Your task to perform on an android device: toggle data saver in the chrome app Image 0: 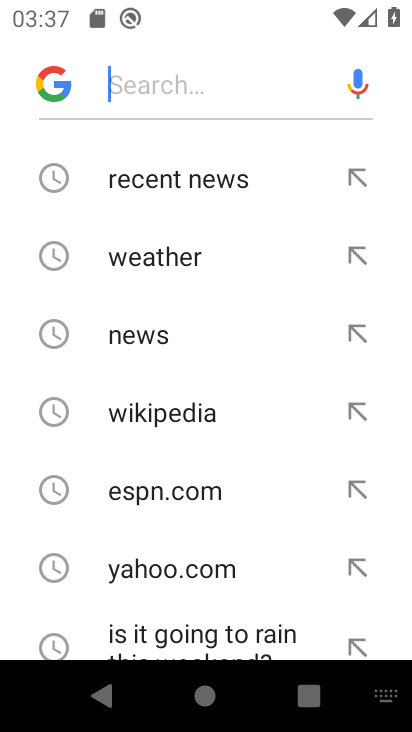
Step 0: press back button
Your task to perform on an android device: toggle data saver in the chrome app Image 1: 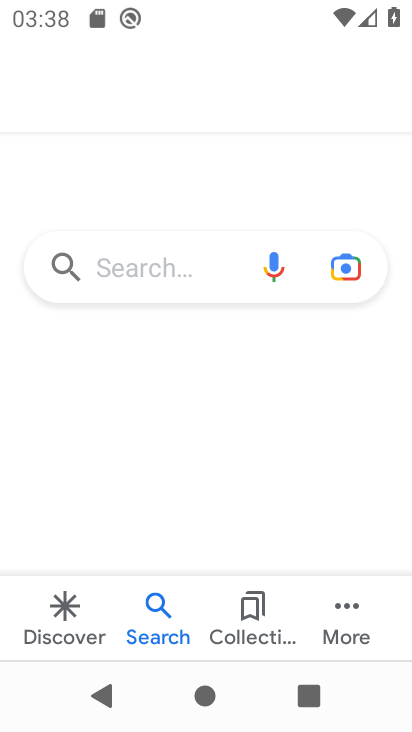
Step 1: press back button
Your task to perform on an android device: toggle data saver in the chrome app Image 2: 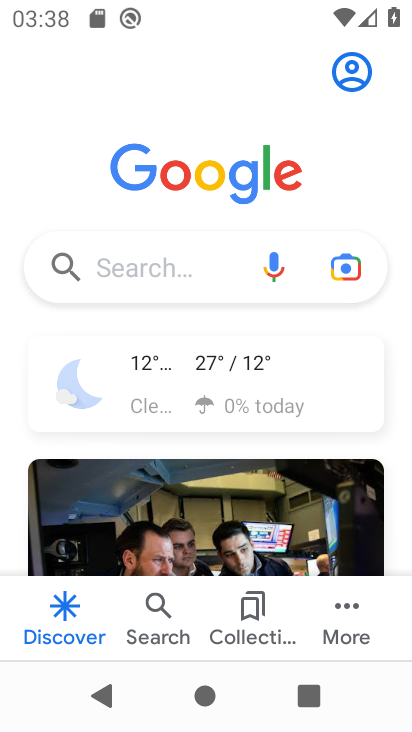
Step 2: press back button
Your task to perform on an android device: toggle data saver in the chrome app Image 3: 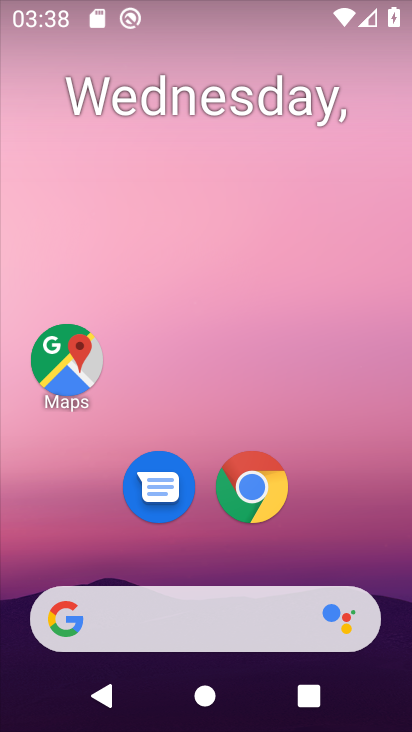
Step 3: click (251, 481)
Your task to perform on an android device: toggle data saver in the chrome app Image 4: 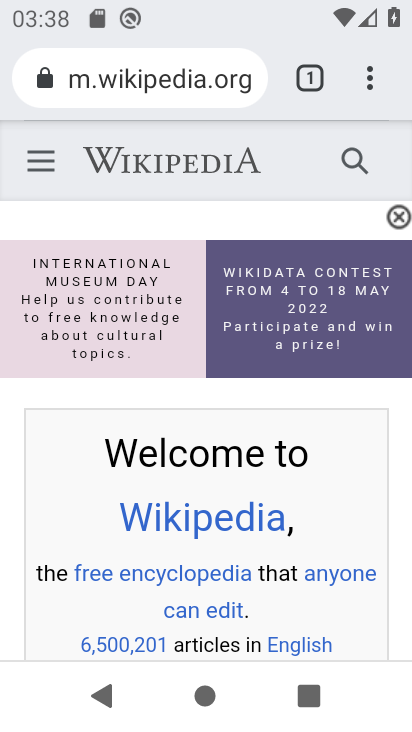
Step 4: click (369, 77)
Your task to perform on an android device: toggle data saver in the chrome app Image 5: 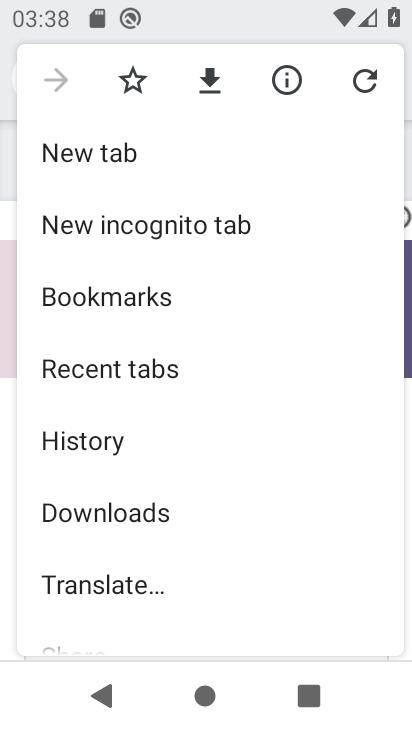
Step 5: drag from (163, 543) to (189, 418)
Your task to perform on an android device: toggle data saver in the chrome app Image 6: 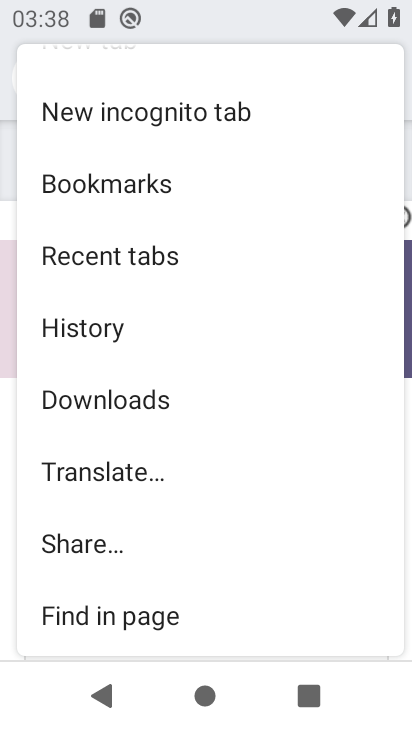
Step 6: drag from (153, 546) to (172, 416)
Your task to perform on an android device: toggle data saver in the chrome app Image 7: 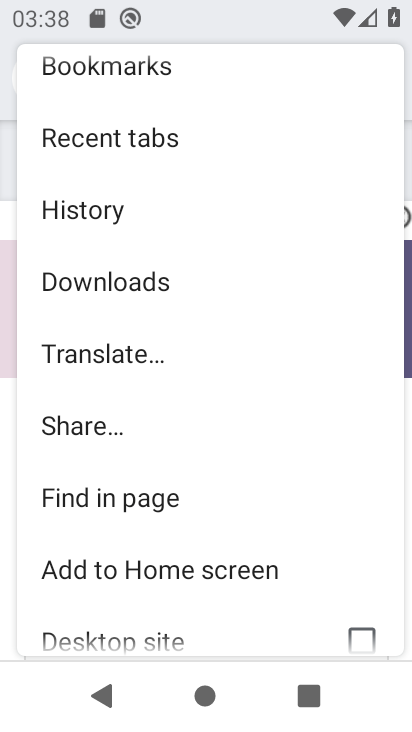
Step 7: drag from (144, 534) to (155, 421)
Your task to perform on an android device: toggle data saver in the chrome app Image 8: 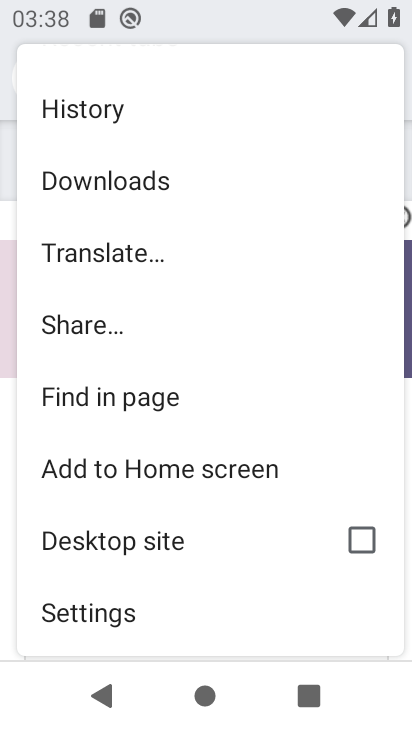
Step 8: drag from (80, 572) to (140, 421)
Your task to perform on an android device: toggle data saver in the chrome app Image 9: 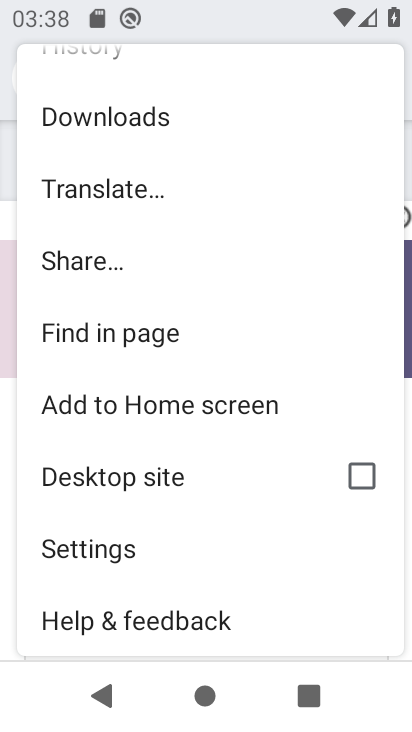
Step 9: drag from (102, 562) to (168, 446)
Your task to perform on an android device: toggle data saver in the chrome app Image 10: 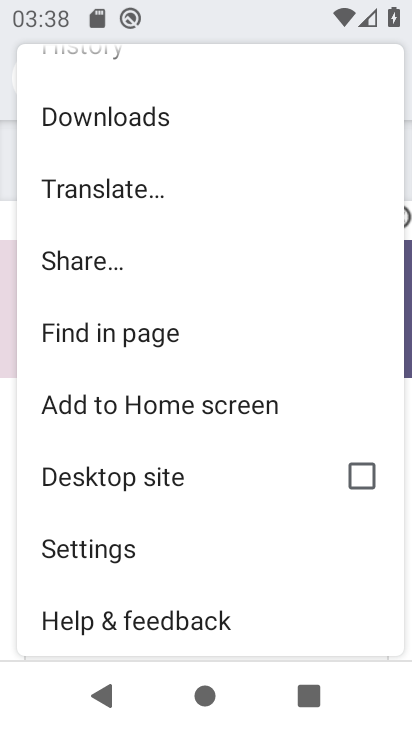
Step 10: click (100, 553)
Your task to perform on an android device: toggle data saver in the chrome app Image 11: 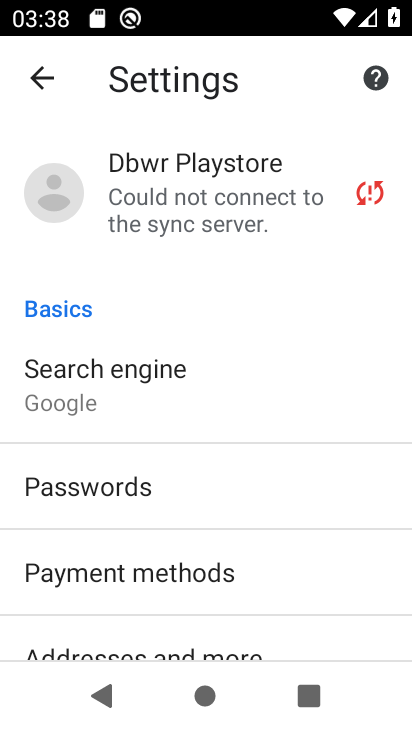
Step 11: drag from (111, 556) to (158, 457)
Your task to perform on an android device: toggle data saver in the chrome app Image 12: 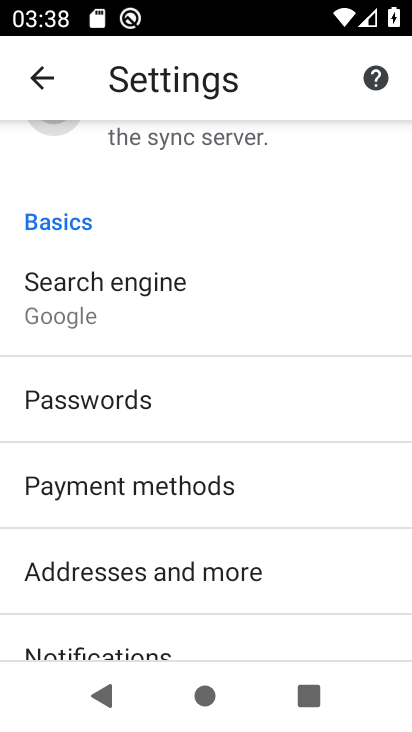
Step 12: drag from (98, 598) to (162, 463)
Your task to perform on an android device: toggle data saver in the chrome app Image 13: 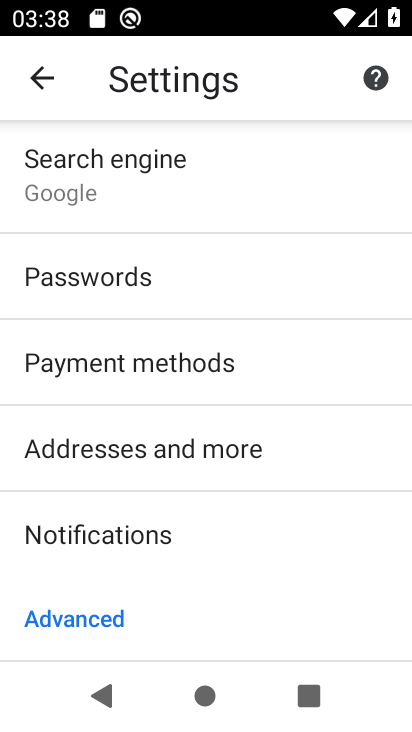
Step 13: drag from (104, 566) to (202, 446)
Your task to perform on an android device: toggle data saver in the chrome app Image 14: 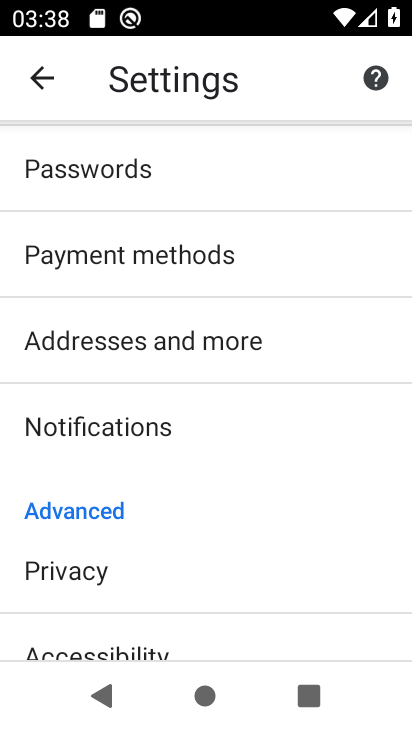
Step 14: drag from (135, 554) to (214, 450)
Your task to perform on an android device: toggle data saver in the chrome app Image 15: 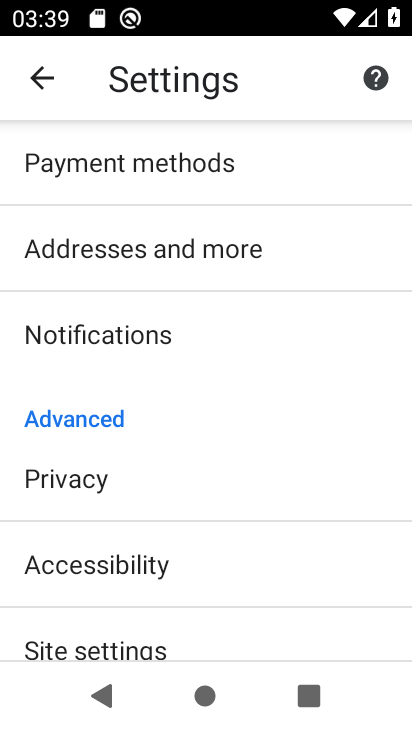
Step 15: drag from (124, 613) to (212, 468)
Your task to perform on an android device: toggle data saver in the chrome app Image 16: 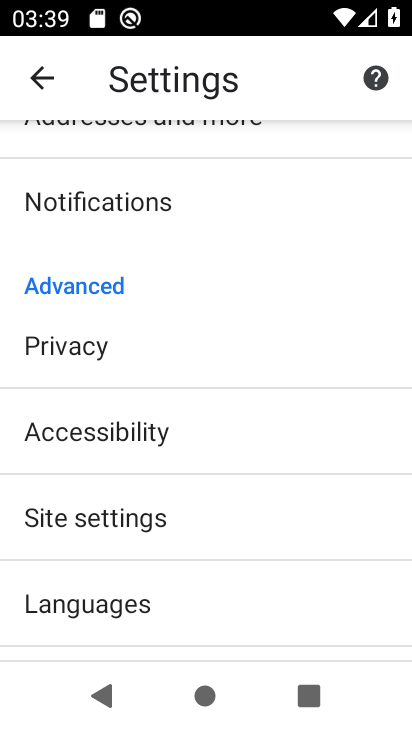
Step 16: drag from (82, 568) to (161, 458)
Your task to perform on an android device: toggle data saver in the chrome app Image 17: 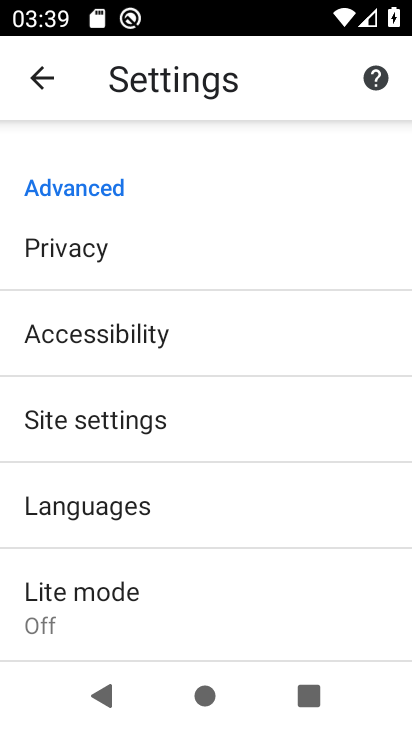
Step 17: click (71, 600)
Your task to perform on an android device: toggle data saver in the chrome app Image 18: 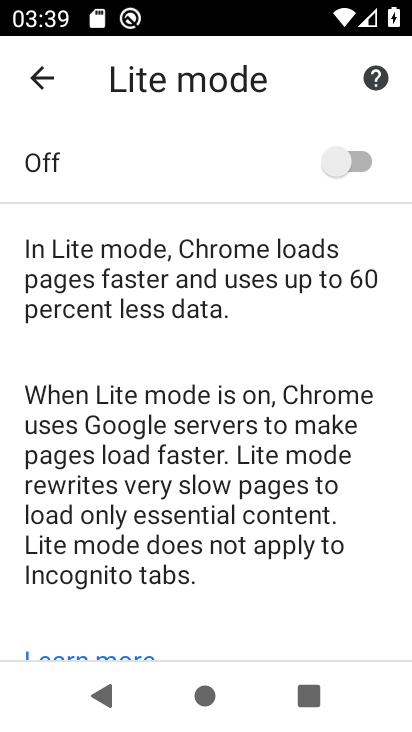
Step 18: click (366, 166)
Your task to perform on an android device: toggle data saver in the chrome app Image 19: 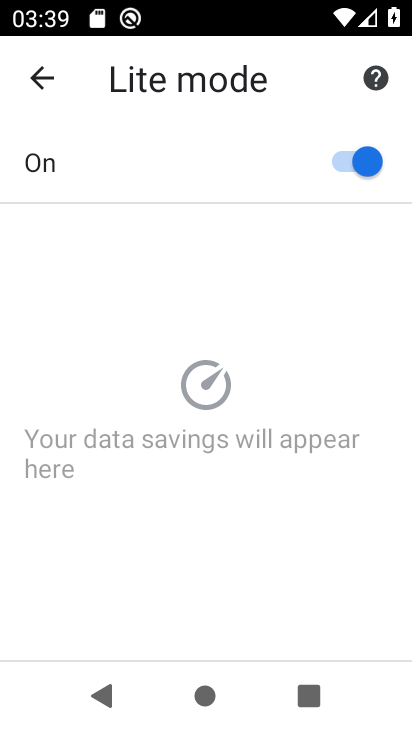
Step 19: task complete